Your task to perform on an android device: check android version Image 0: 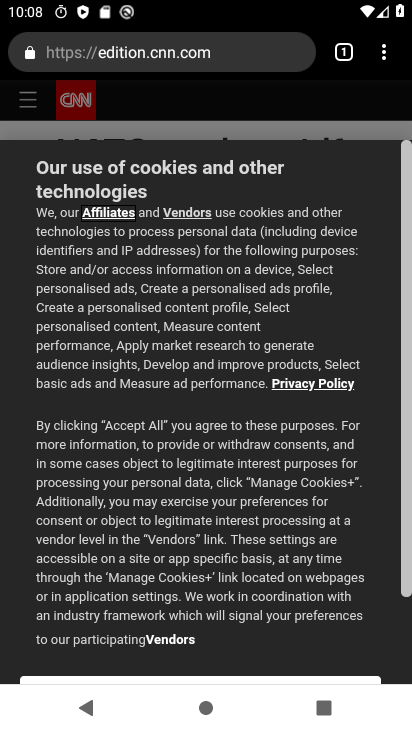
Step 0: click (354, 49)
Your task to perform on an android device: check android version Image 1: 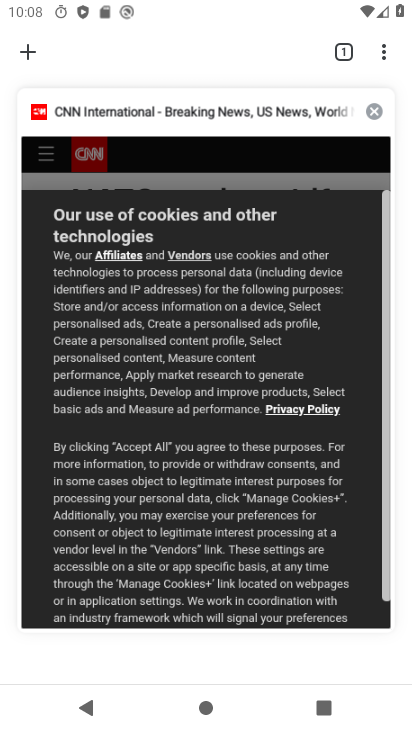
Step 1: click (36, 53)
Your task to perform on an android device: check android version Image 2: 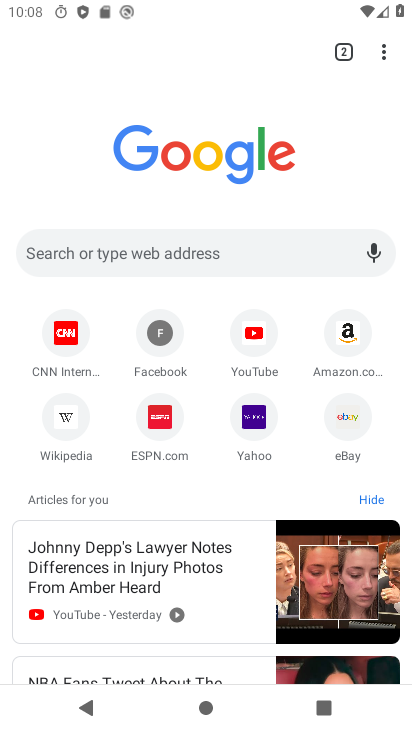
Step 2: click (348, 323)
Your task to perform on an android device: check android version Image 3: 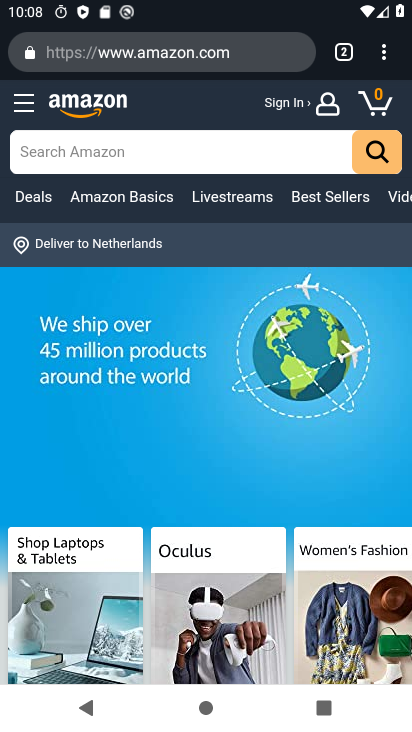
Step 3: task complete